Your task to perform on an android device: Go to internet settings Image 0: 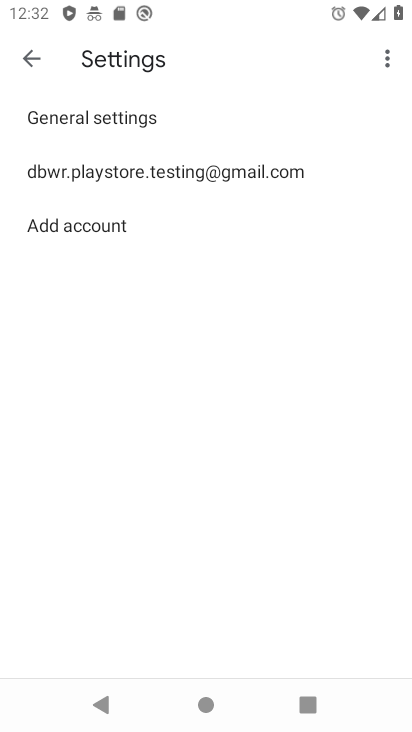
Step 0: press home button
Your task to perform on an android device: Go to internet settings Image 1: 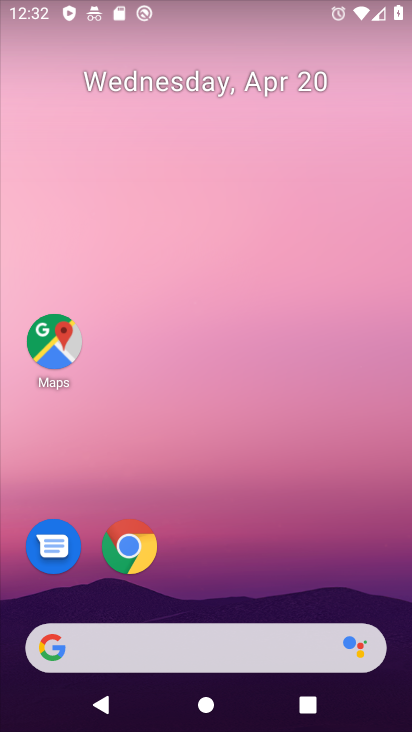
Step 1: drag from (264, 699) to (233, 141)
Your task to perform on an android device: Go to internet settings Image 2: 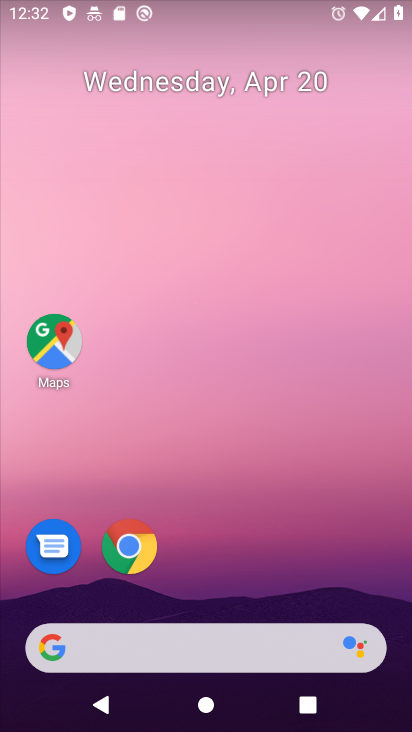
Step 2: drag from (250, 712) to (250, 145)
Your task to perform on an android device: Go to internet settings Image 3: 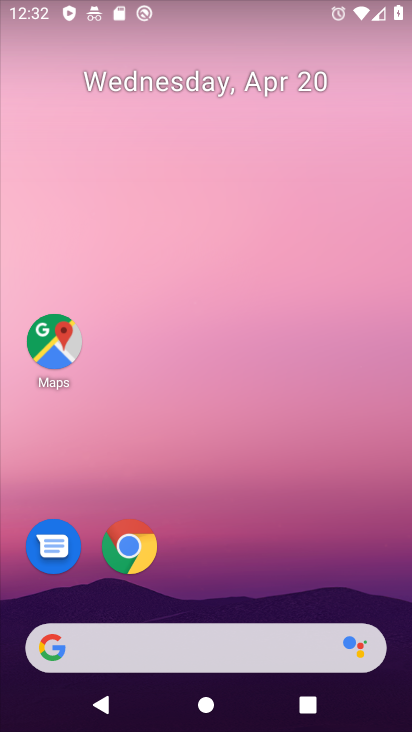
Step 3: drag from (260, 610) to (410, 724)
Your task to perform on an android device: Go to internet settings Image 4: 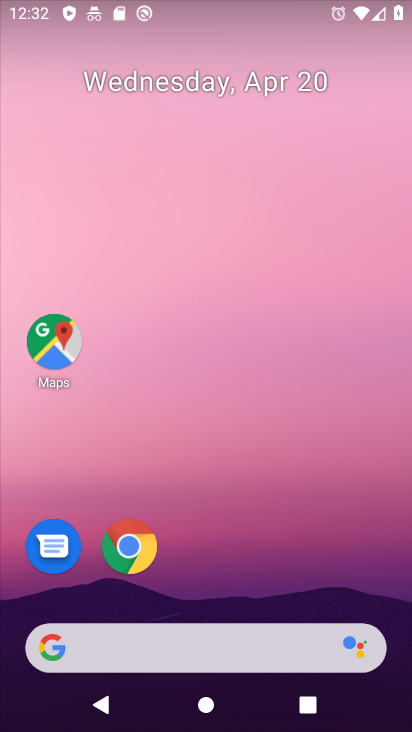
Step 4: drag from (266, 668) to (226, 5)
Your task to perform on an android device: Go to internet settings Image 5: 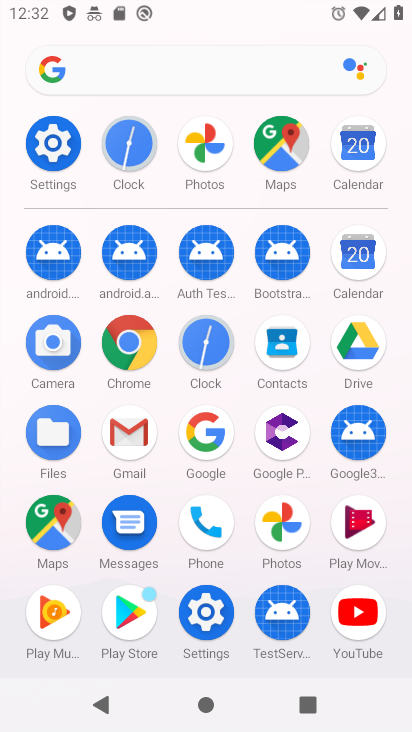
Step 5: click (58, 129)
Your task to perform on an android device: Go to internet settings Image 6: 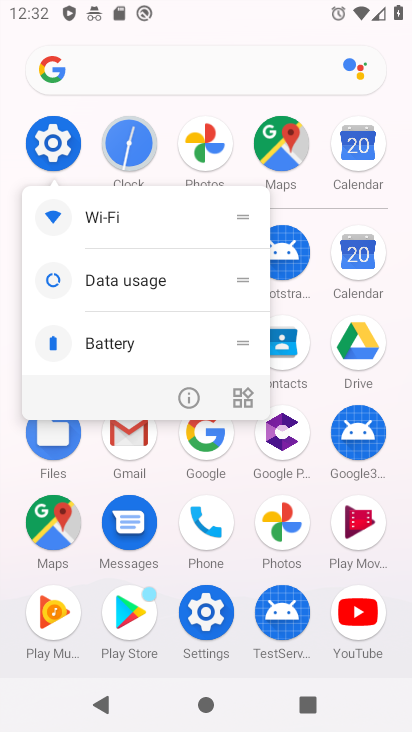
Step 6: click (63, 134)
Your task to perform on an android device: Go to internet settings Image 7: 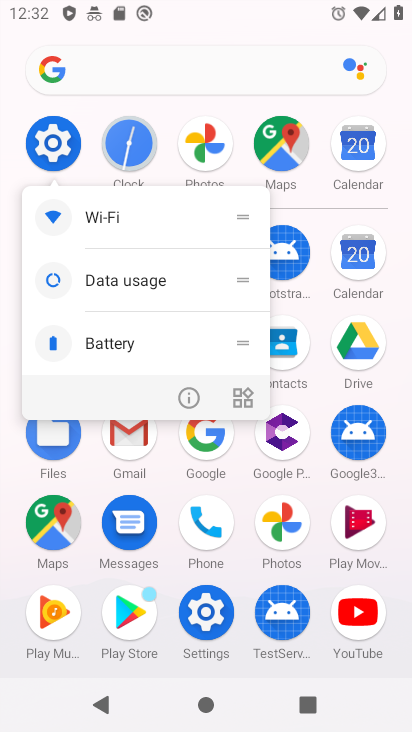
Step 7: click (63, 134)
Your task to perform on an android device: Go to internet settings Image 8: 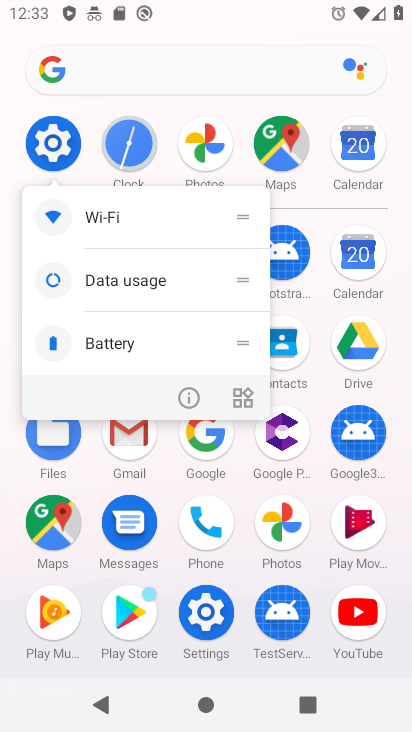
Step 8: click (71, 156)
Your task to perform on an android device: Go to internet settings Image 9: 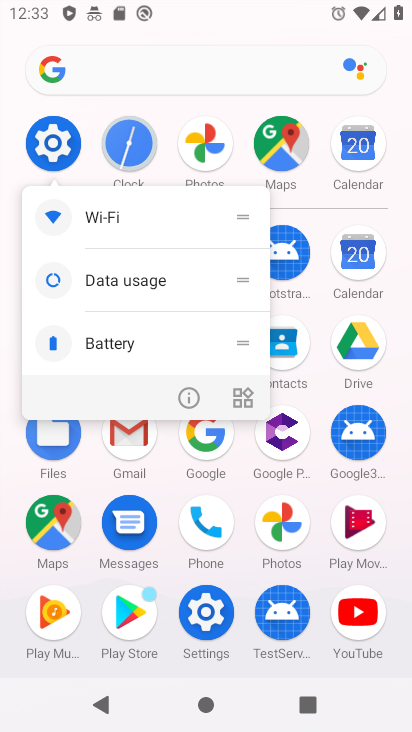
Step 9: click (58, 141)
Your task to perform on an android device: Go to internet settings Image 10: 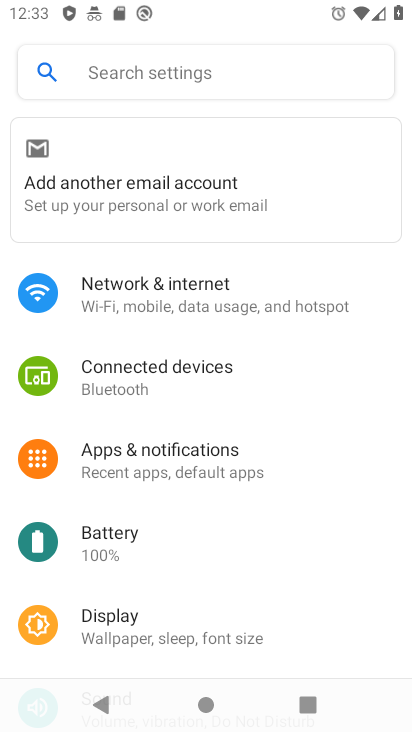
Step 10: click (232, 316)
Your task to perform on an android device: Go to internet settings Image 11: 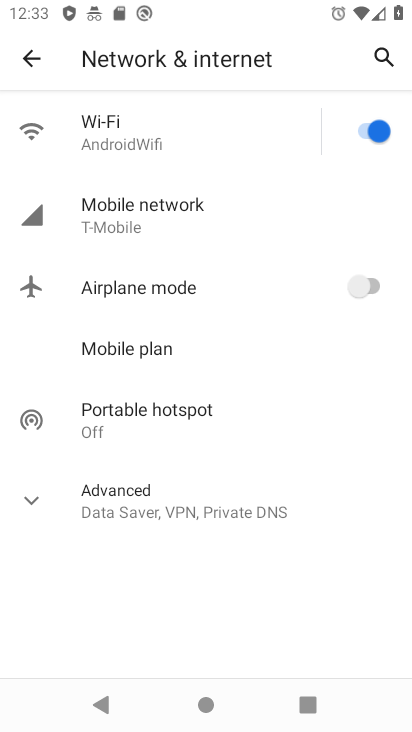
Step 11: task complete